Your task to perform on an android device: What's the weather going to be this weekend? Image 0: 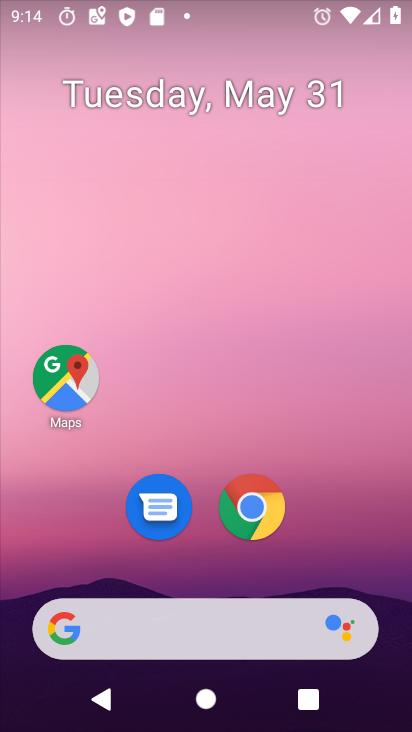
Step 0: click (124, 637)
Your task to perform on an android device: What's the weather going to be this weekend? Image 1: 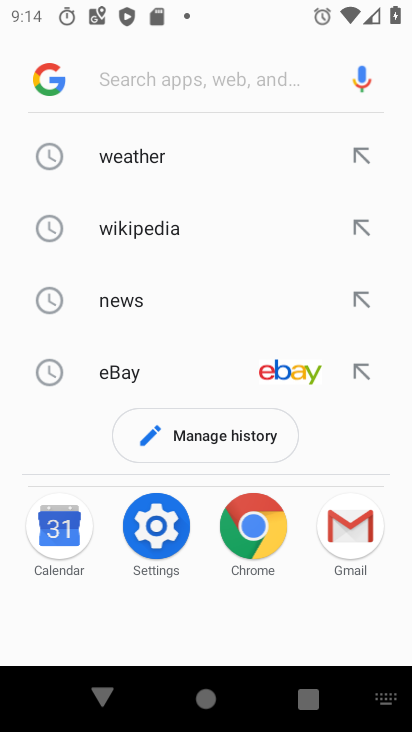
Step 1: click (110, 163)
Your task to perform on an android device: What's the weather going to be this weekend? Image 2: 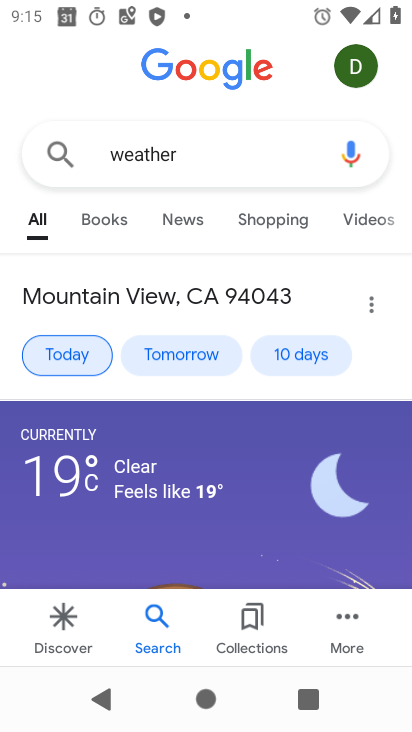
Step 2: click (311, 353)
Your task to perform on an android device: What's the weather going to be this weekend? Image 3: 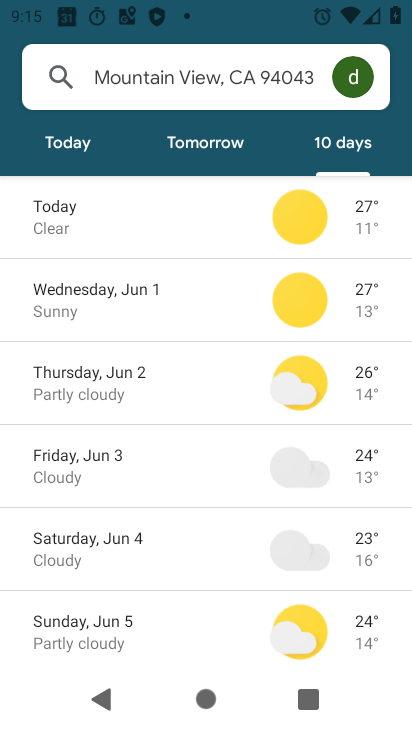
Step 3: task complete